Your task to perform on an android device: turn pop-ups on in chrome Image 0: 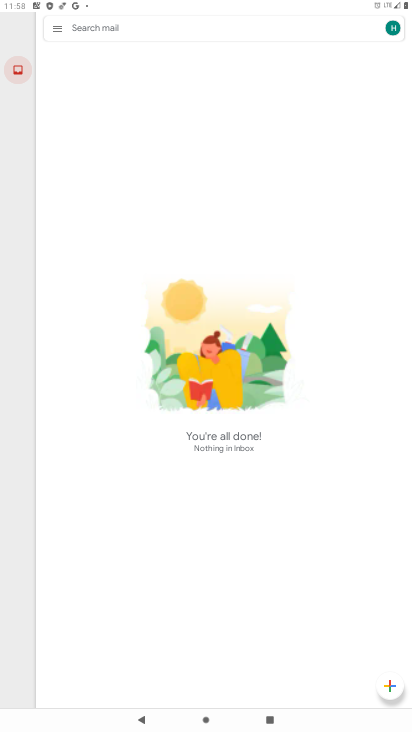
Step 0: press home button
Your task to perform on an android device: turn pop-ups on in chrome Image 1: 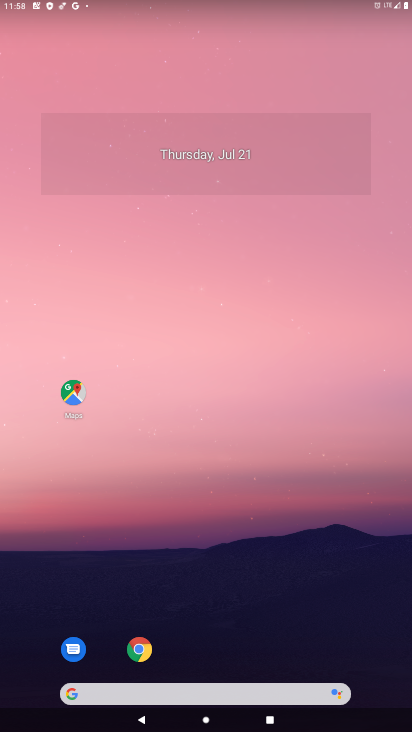
Step 1: drag from (251, 631) to (248, 29)
Your task to perform on an android device: turn pop-ups on in chrome Image 2: 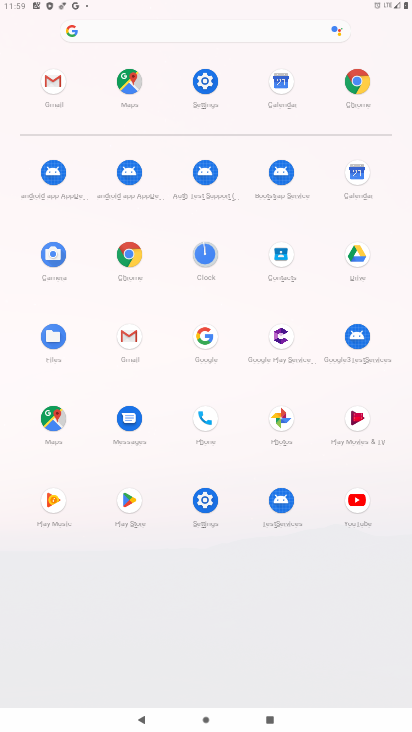
Step 2: click (127, 251)
Your task to perform on an android device: turn pop-ups on in chrome Image 3: 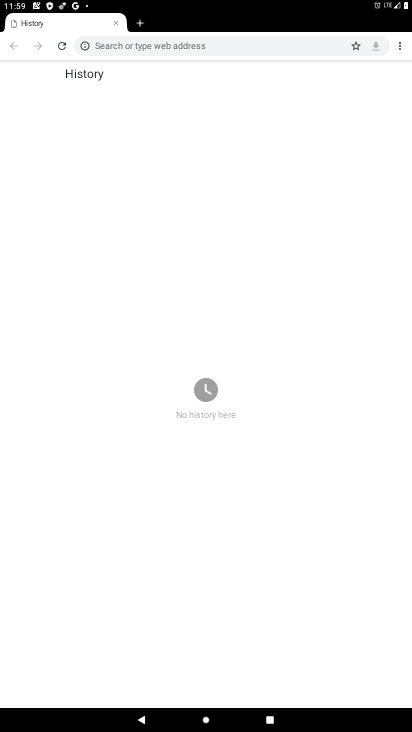
Step 3: click (398, 41)
Your task to perform on an android device: turn pop-ups on in chrome Image 4: 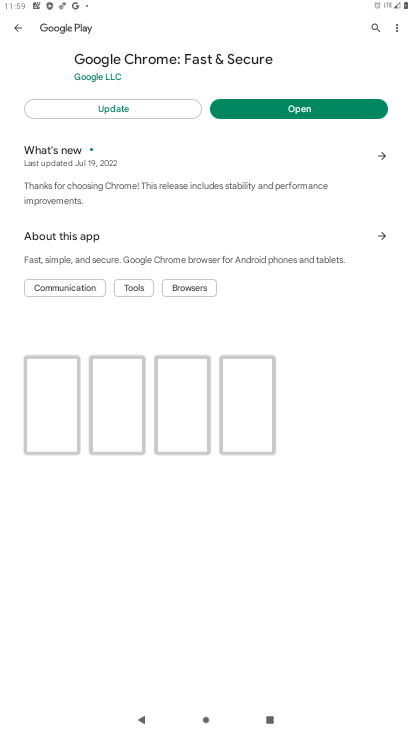
Step 4: press back button
Your task to perform on an android device: turn pop-ups on in chrome Image 5: 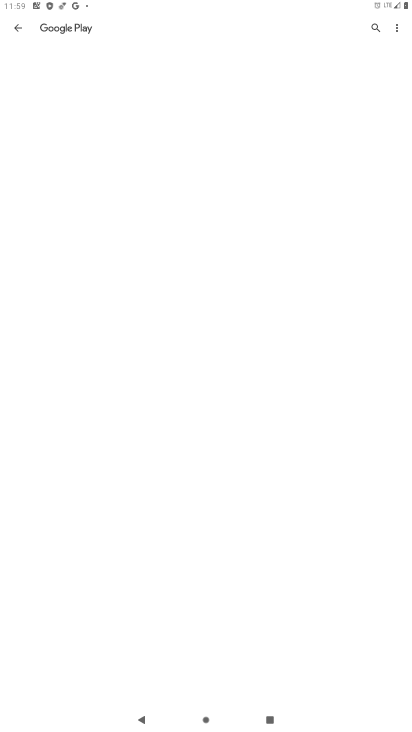
Step 5: press back button
Your task to perform on an android device: turn pop-ups on in chrome Image 6: 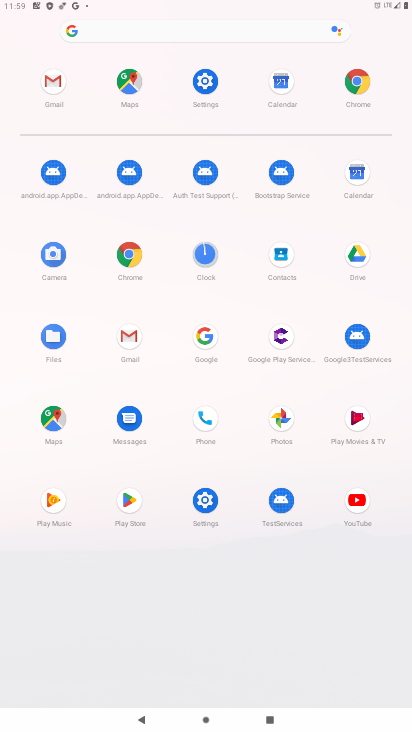
Step 6: click (354, 84)
Your task to perform on an android device: turn pop-ups on in chrome Image 7: 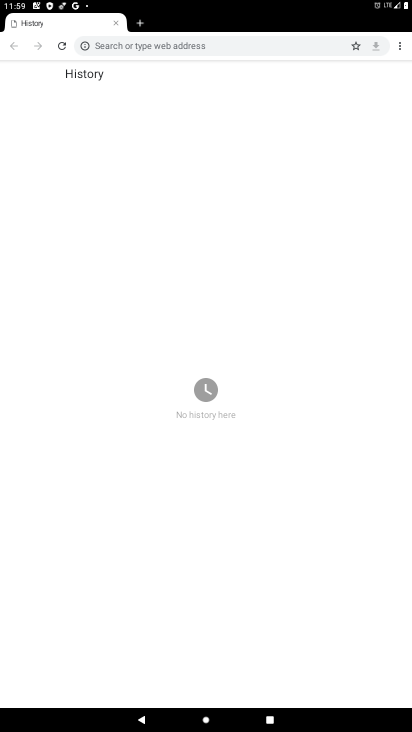
Step 7: drag from (397, 44) to (304, 241)
Your task to perform on an android device: turn pop-ups on in chrome Image 8: 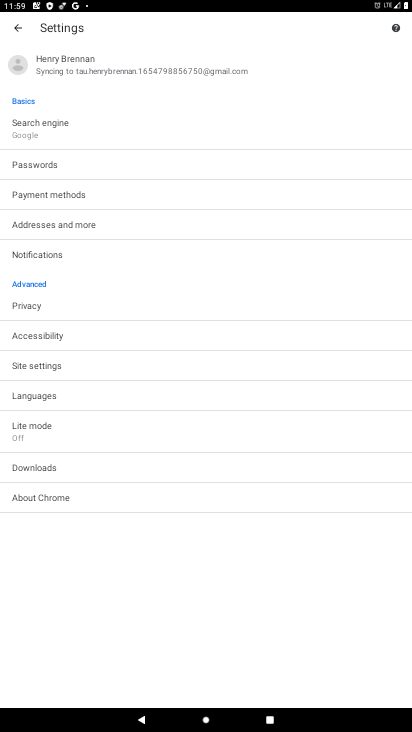
Step 8: click (73, 365)
Your task to perform on an android device: turn pop-ups on in chrome Image 9: 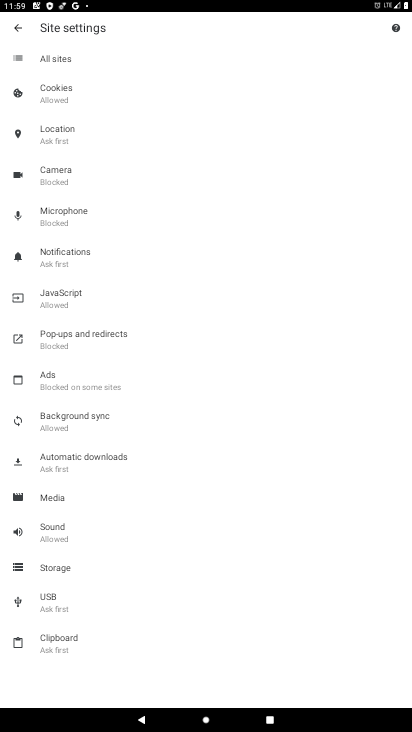
Step 9: click (91, 341)
Your task to perform on an android device: turn pop-ups on in chrome Image 10: 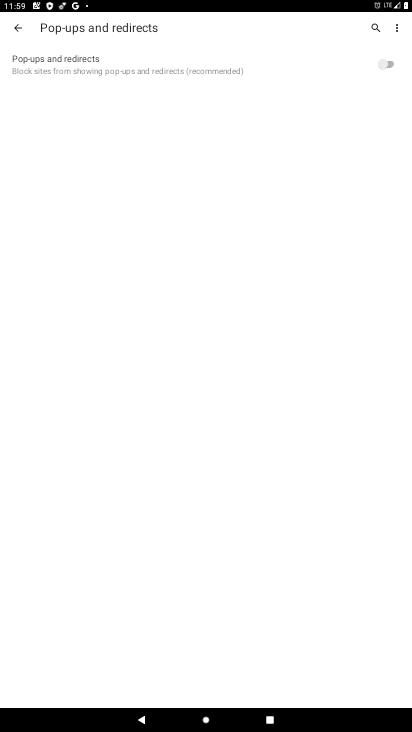
Step 10: click (373, 60)
Your task to perform on an android device: turn pop-ups on in chrome Image 11: 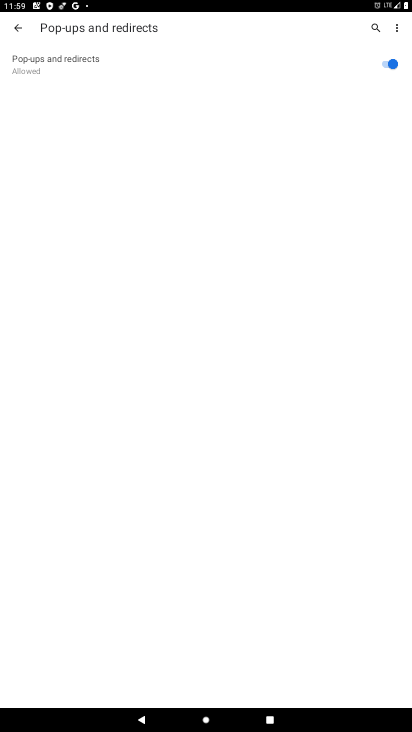
Step 11: task complete